Your task to perform on an android device: Do I have any events tomorrow? Image 0: 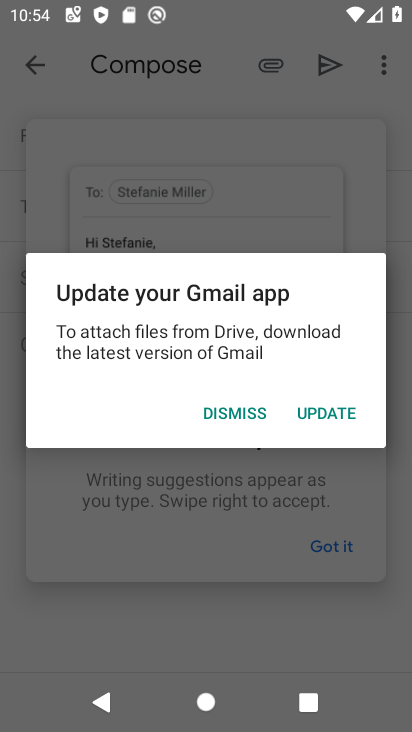
Step 0: press home button
Your task to perform on an android device: Do I have any events tomorrow? Image 1: 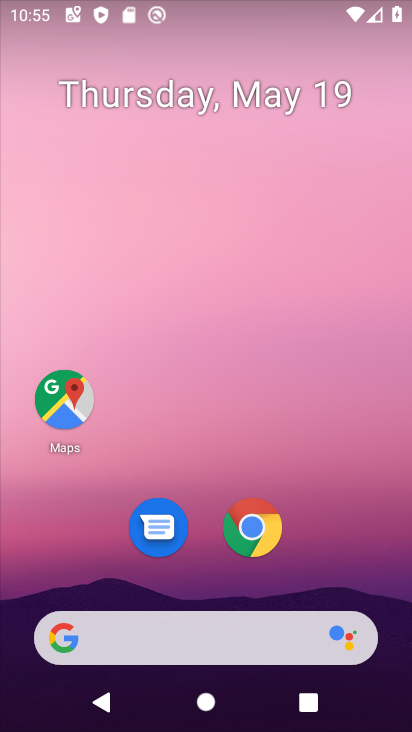
Step 1: drag from (222, 587) to (286, 6)
Your task to perform on an android device: Do I have any events tomorrow? Image 2: 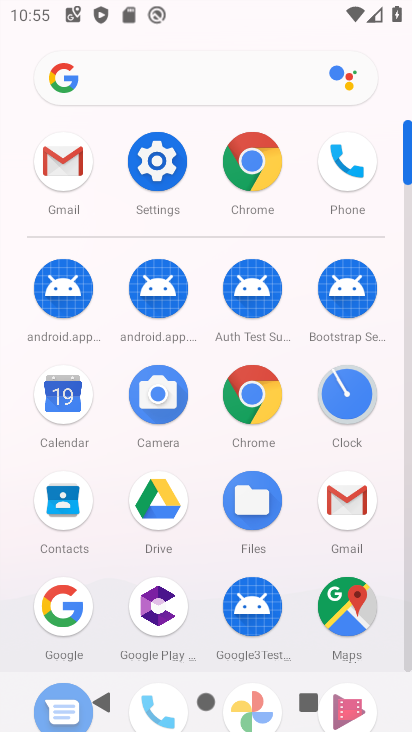
Step 2: drag from (216, 585) to (263, 214)
Your task to perform on an android device: Do I have any events tomorrow? Image 3: 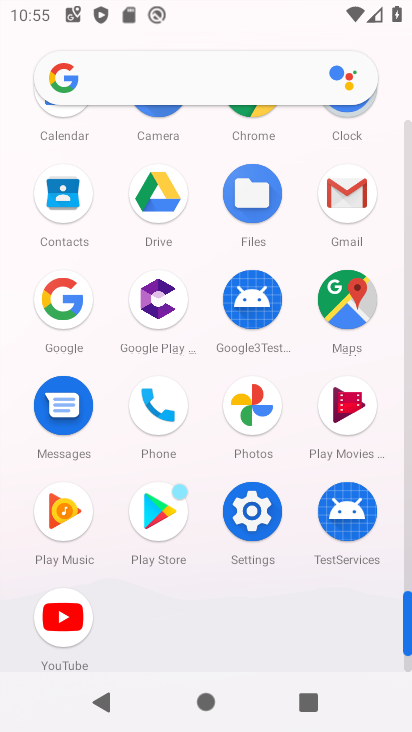
Step 3: drag from (177, 165) to (165, 332)
Your task to perform on an android device: Do I have any events tomorrow? Image 4: 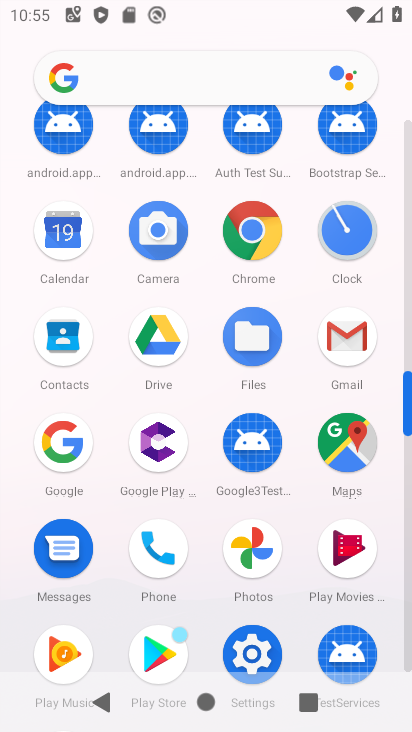
Step 4: click (71, 261)
Your task to perform on an android device: Do I have any events tomorrow? Image 5: 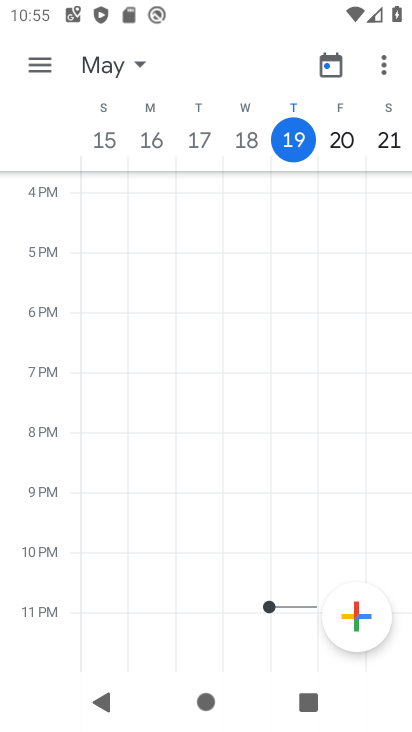
Step 5: click (60, 66)
Your task to perform on an android device: Do I have any events tomorrow? Image 6: 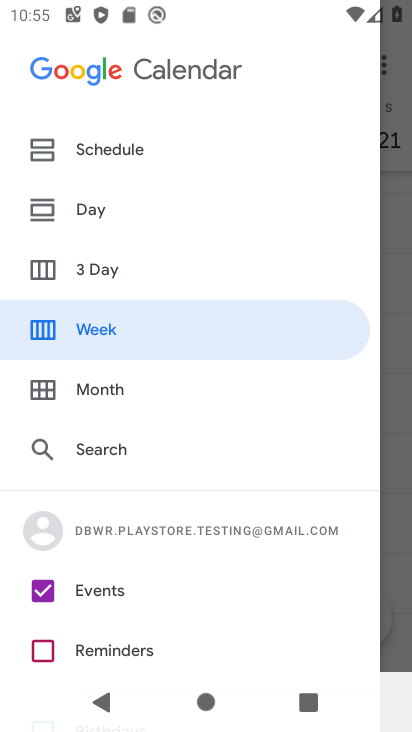
Step 6: click (127, 277)
Your task to perform on an android device: Do I have any events tomorrow? Image 7: 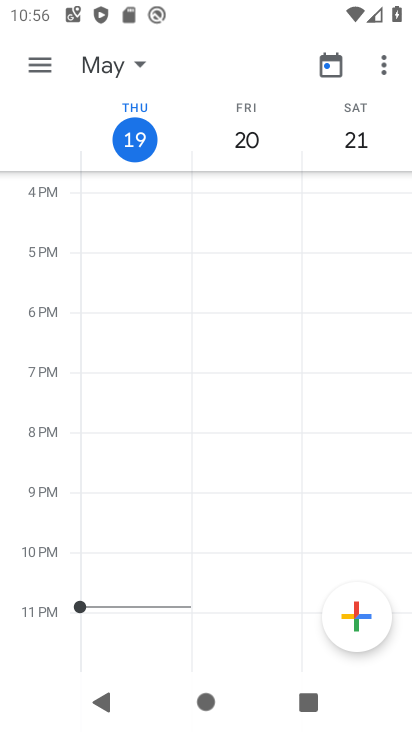
Step 7: click (34, 73)
Your task to perform on an android device: Do I have any events tomorrow? Image 8: 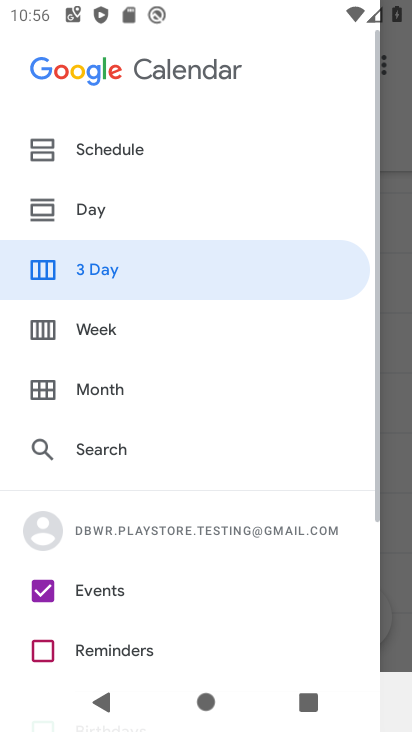
Step 8: drag from (202, 556) to (242, 386)
Your task to perform on an android device: Do I have any events tomorrow? Image 9: 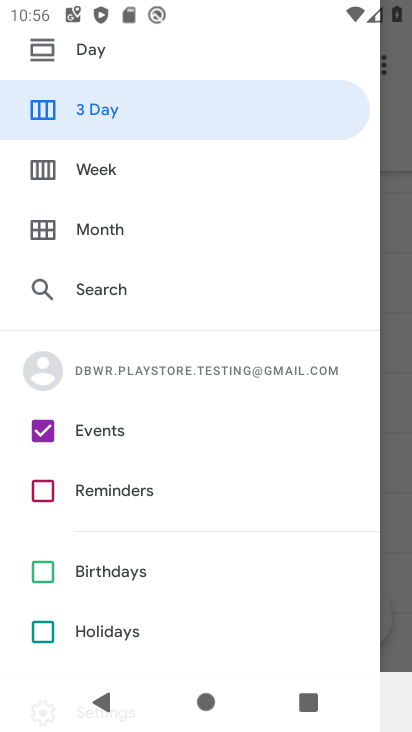
Step 9: click (130, 106)
Your task to perform on an android device: Do I have any events tomorrow? Image 10: 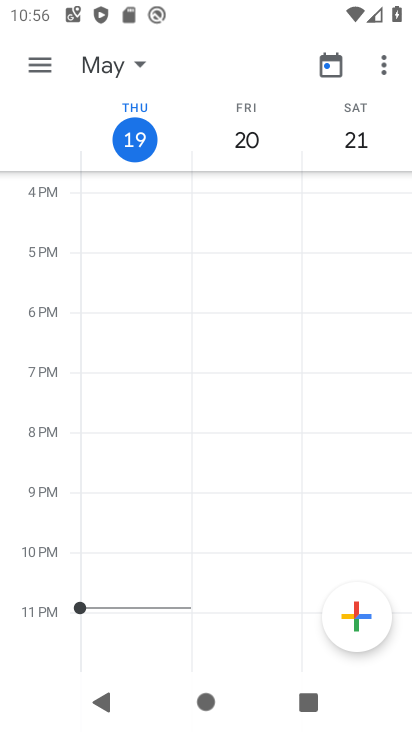
Step 10: task complete